Your task to perform on an android device: show emergency info Image 0: 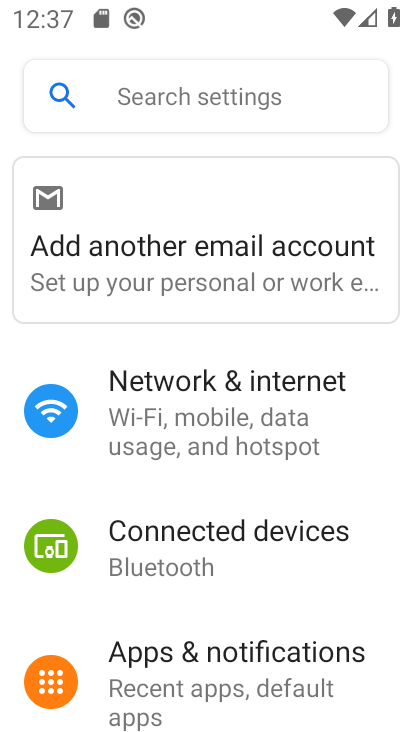
Step 0: press home button
Your task to perform on an android device: show emergency info Image 1: 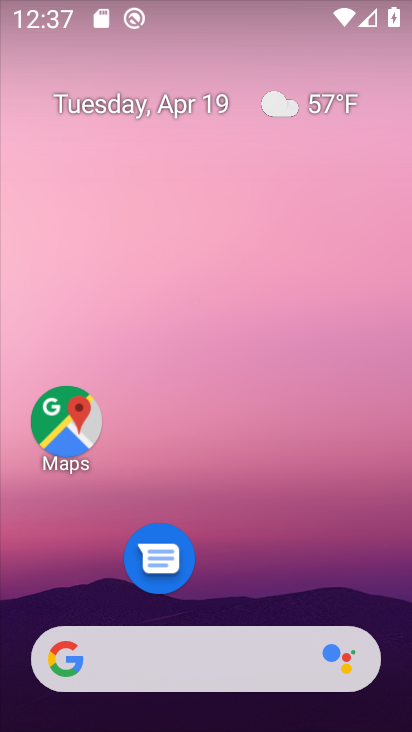
Step 1: drag from (227, 543) to (169, 98)
Your task to perform on an android device: show emergency info Image 2: 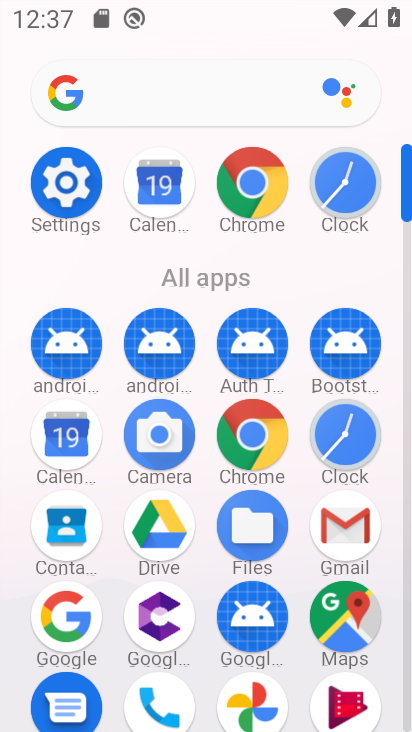
Step 2: click (43, 182)
Your task to perform on an android device: show emergency info Image 3: 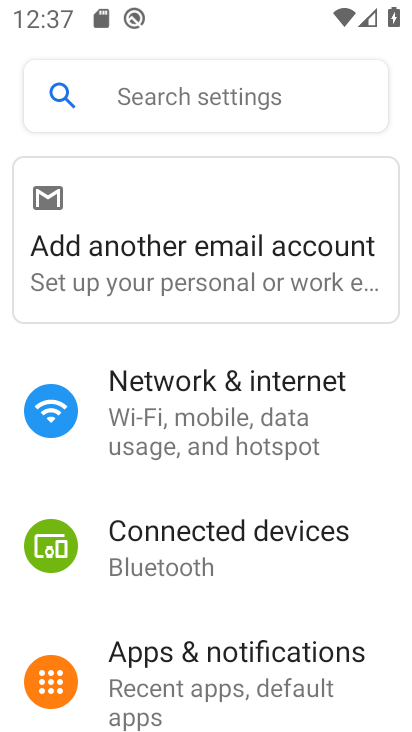
Step 3: click (195, 96)
Your task to perform on an android device: show emergency info Image 4: 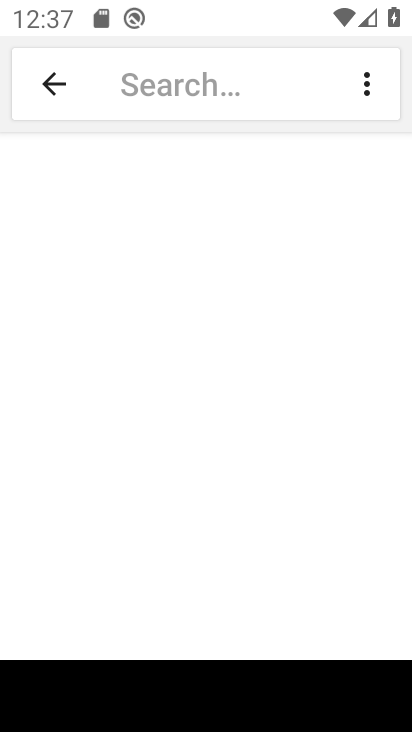
Step 4: type "emergency info"
Your task to perform on an android device: show emergency info Image 5: 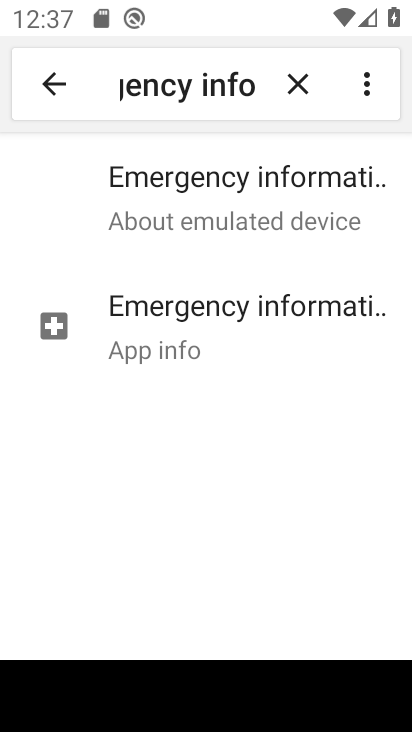
Step 5: click (185, 337)
Your task to perform on an android device: show emergency info Image 6: 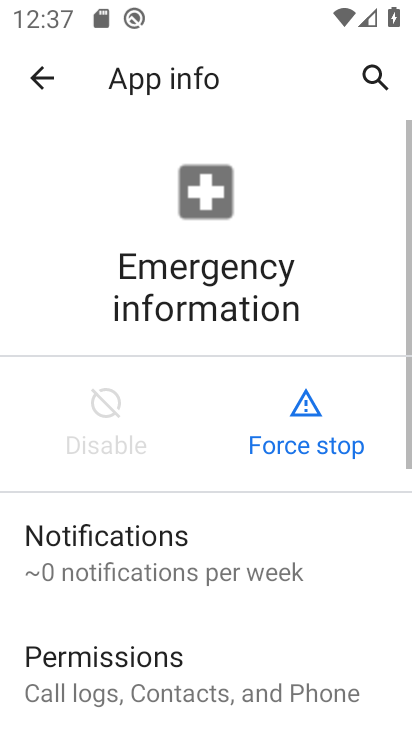
Step 6: drag from (189, 611) to (188, 83)
Your task to perform on an android device: show emergency info Image 7: 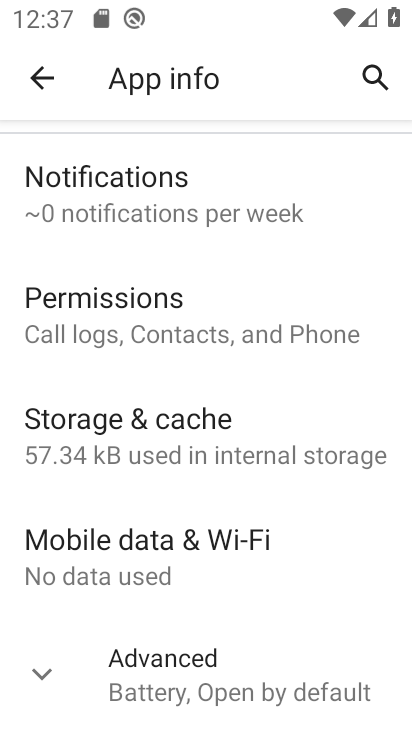
Step 7: drag from (227, 588) to (248, 676)
Your task to perform on an android device: show emergency info Image 8: 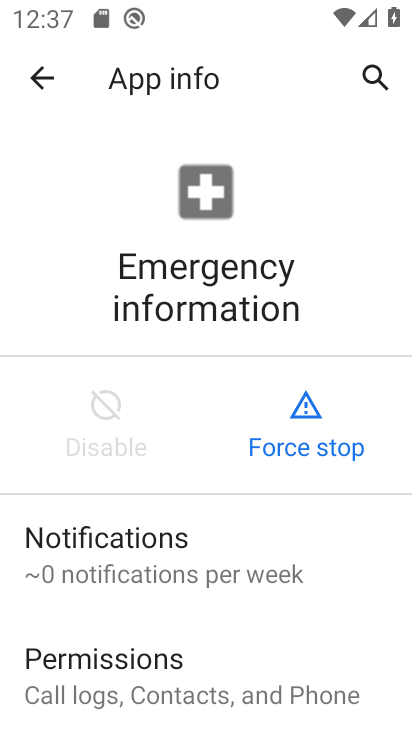
Step 8: click (48, 70)
Your task to perform on an android device: show emergency info Image 9: 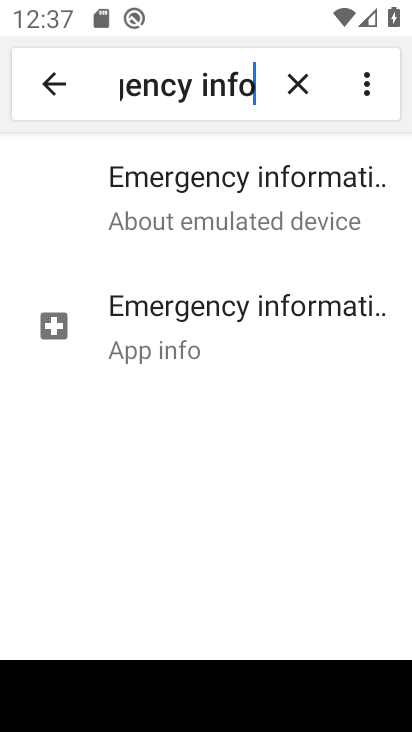
Step 9: click (176, 194)
Your task to perform on an android device: show emergency info Image 10: 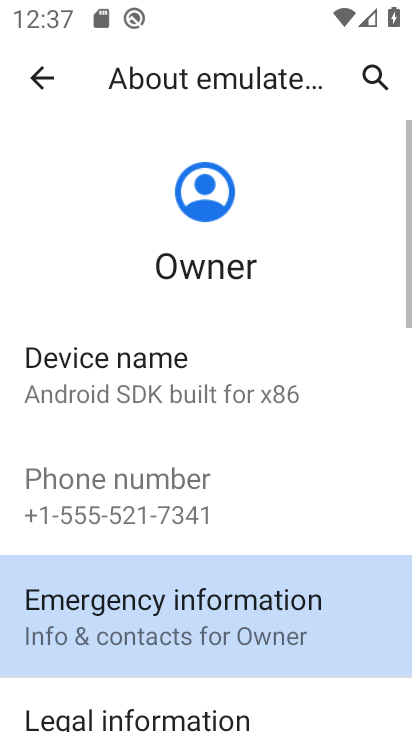
Step 10: click (203, 628)
Your task to perform on an android device: show emergency info Image 11: 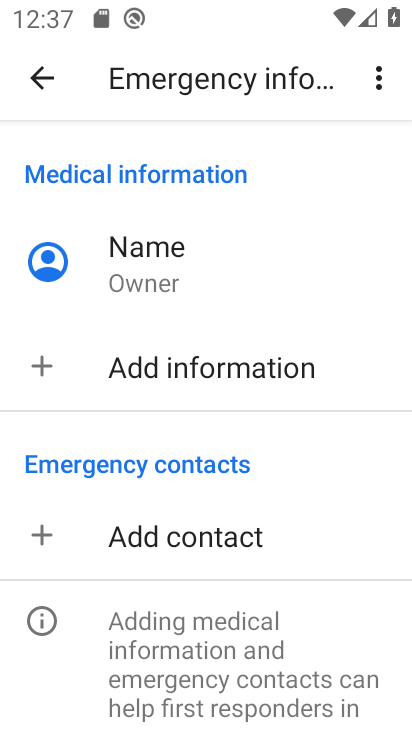
Step 11: task complete